Your task to perform on an android device: turn notification dots off Image 0: 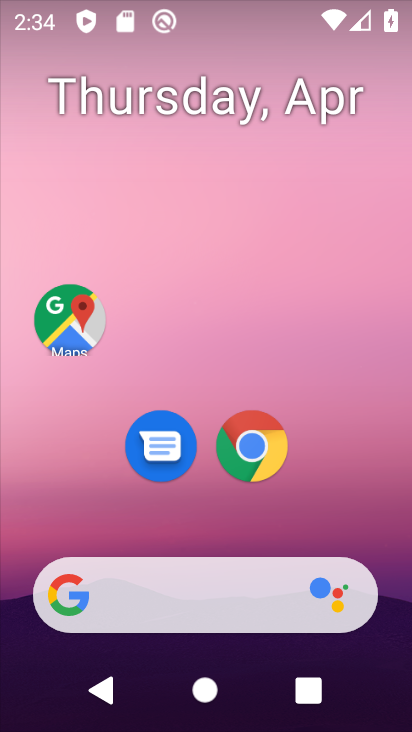
Step 0: drag from (241, 648) to (295, 82)
Your task to perform on an android device: turn notification dots off Image 1: 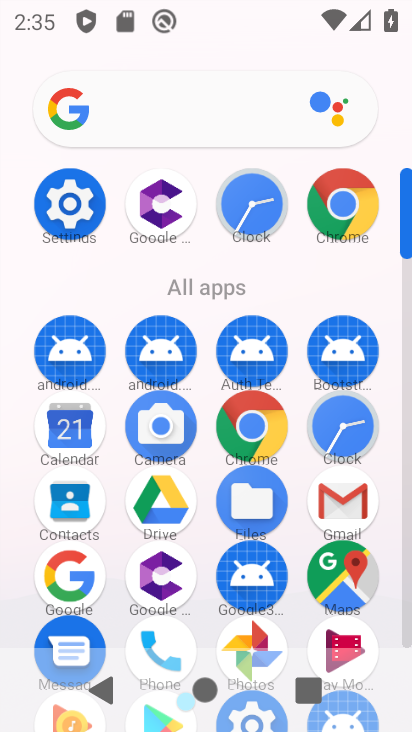
Step 1: click (74, 204)
Your task to perform on an android device: turn notification dots off Image 2: 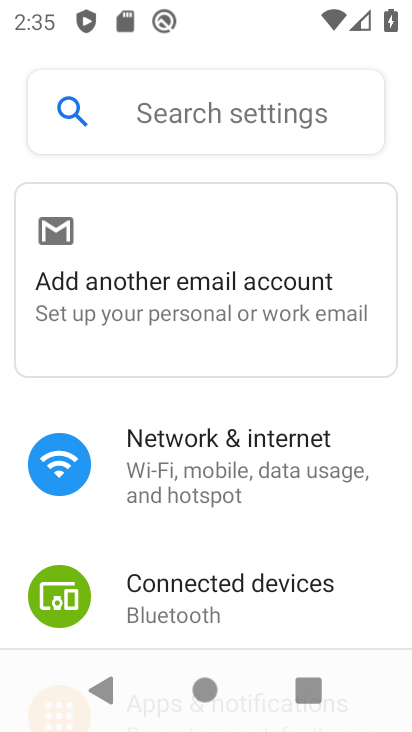
Step 2: click (163, 115)
Your task to perform on an android device: turn notification dots off Image 3: 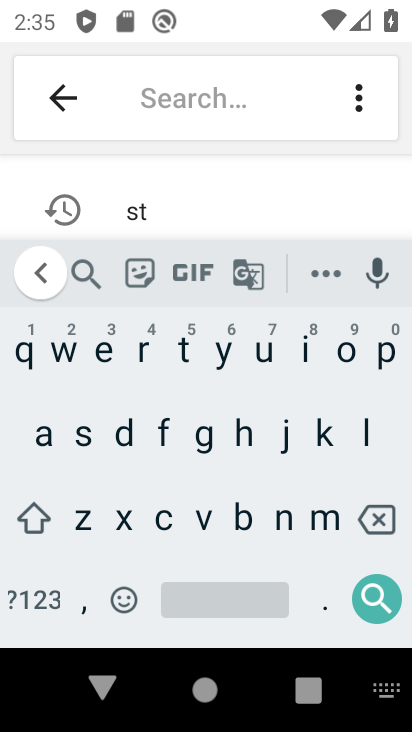
Step 3: click (120, 436)
Your task to perform on an android device: turn notification dots off Image 4: 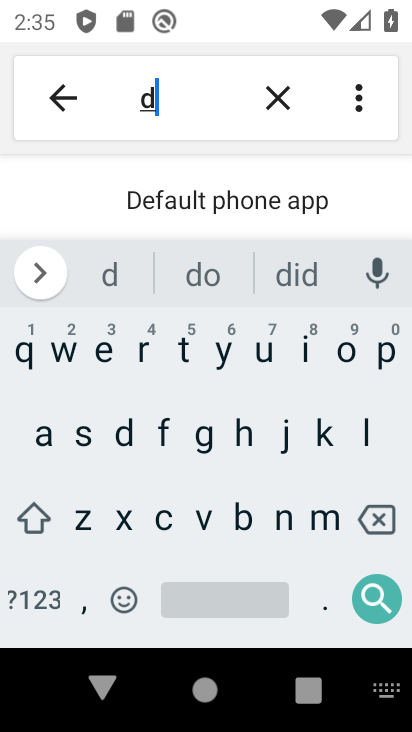
Step 4: click (340, 357)
Your task to perform on an android device: turn notification dots off Image 5: 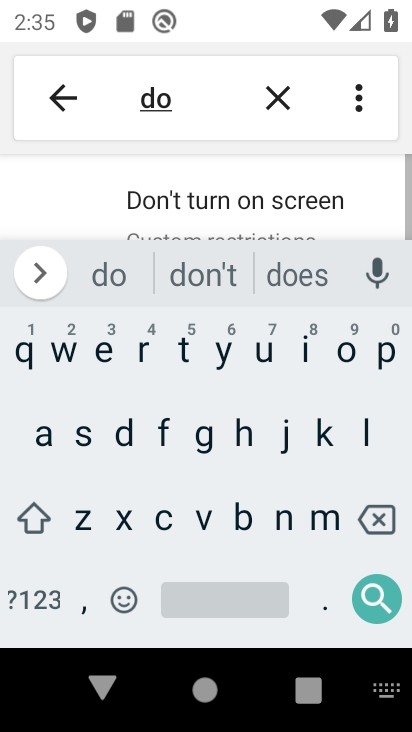
Step 5: click (184, 354)
Your task to perform on an android device: turn notification dots off Image 6: 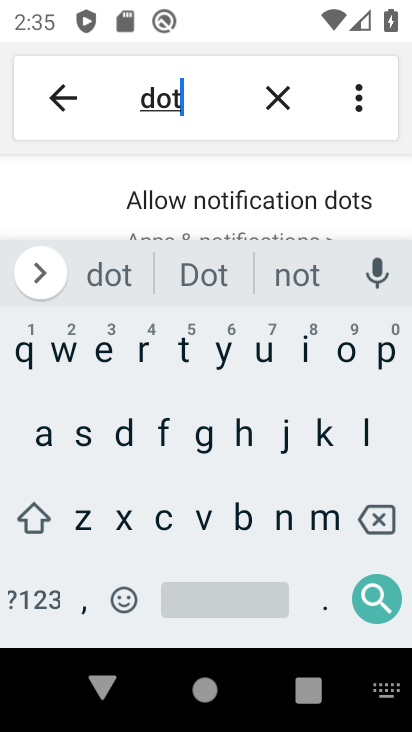
Step 6: click (266, 189)
Your task to perform on an android device: turn notification dots off Image 7: 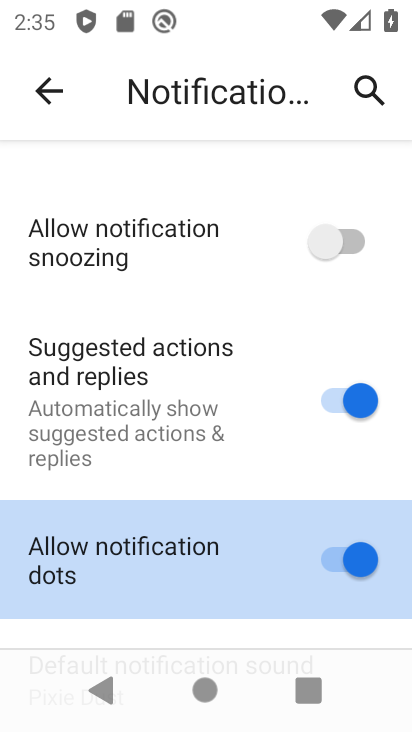
Step 7: click (131, 523)
Your task to perform on an android device: turn notification dots off Image 8: 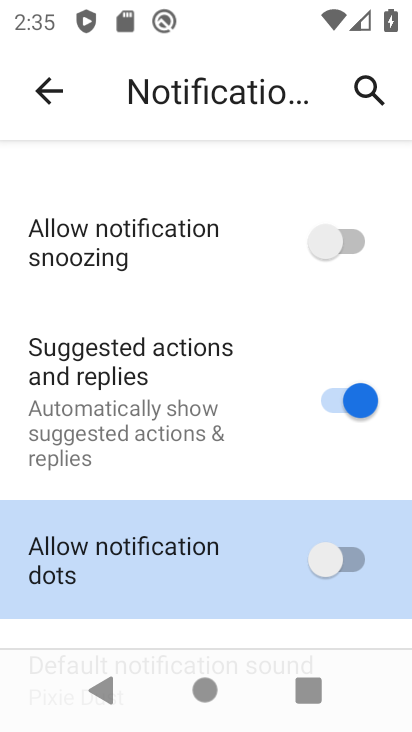
Step 8: task complete